Your task to perform on an android device: Go to Reddit.com Image 0: 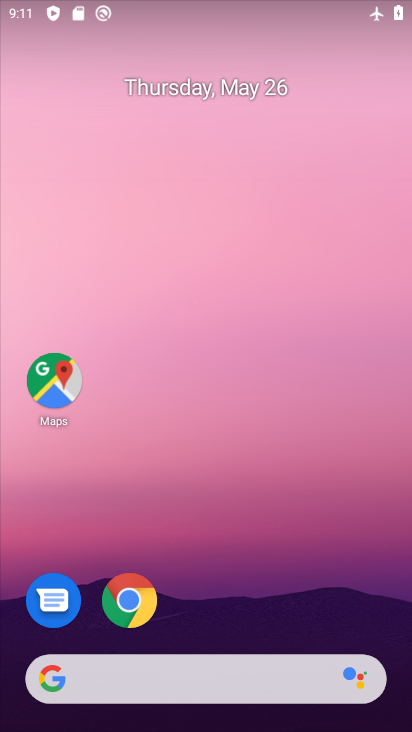
Step 0: click (126, 592)
Your task to perform on an android device: Go to Reddit.com Image 1: 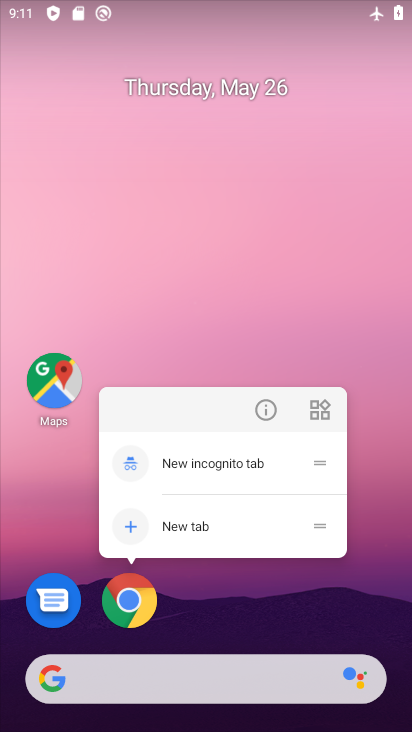
Step 1: click (124, 603)
Your task to perform on an android device: Go to Reddit.com Image 2: 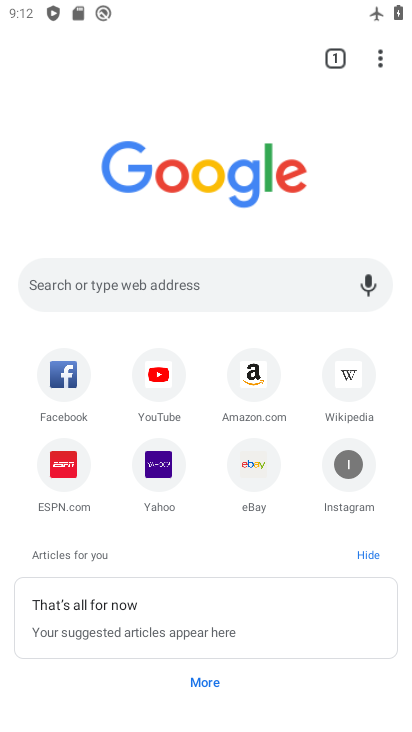
Step 2: click (216, 257)
Your task to perform on an android device: Go to Reddit.com Image 3: 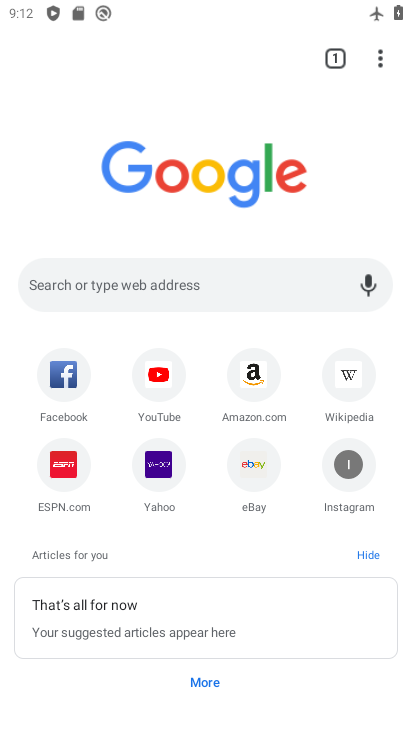
Step 3: click (223, 274)
Your task to perform on an android device: Go to Reddit.com Image 4: 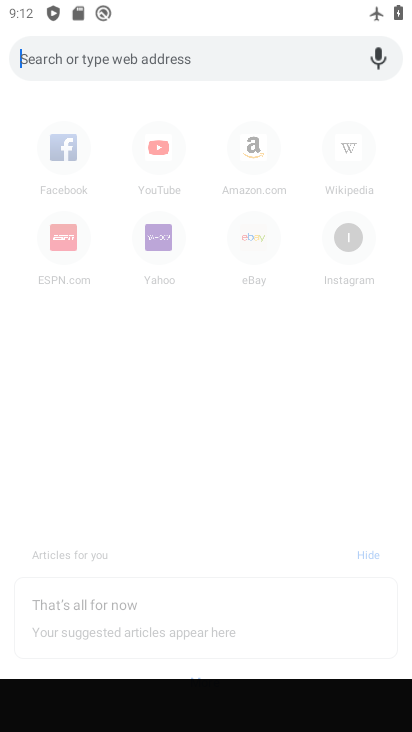
Step 4: click (192, 75)
Your task to perform on an android device: Go to Reddit.com Image 5: 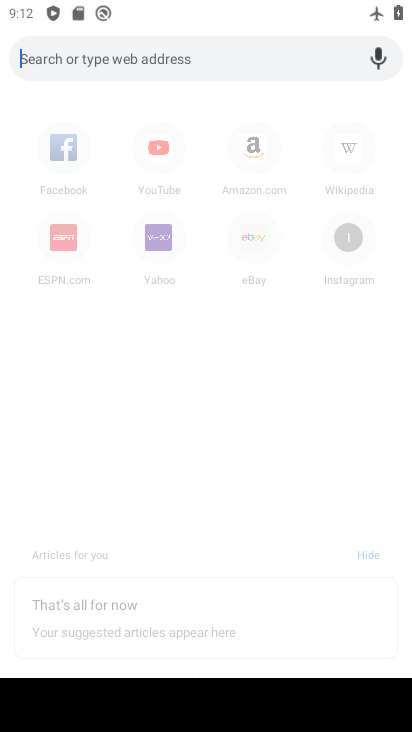
Step 5: type "reddit.com"
Your task to perform on an android device: Go to Reddit.com Image 6: 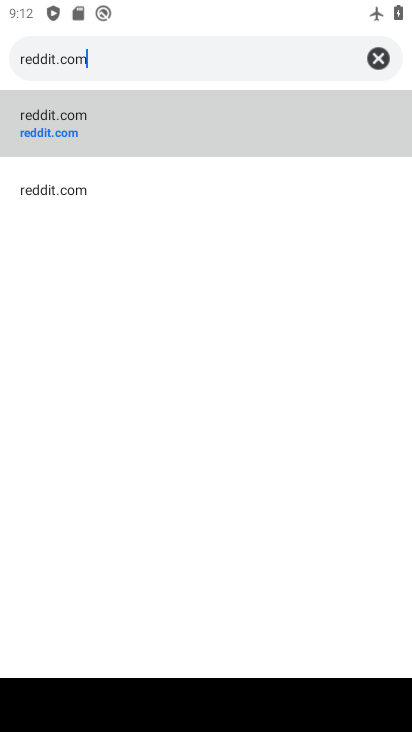
Step 6: click (160, 121)
Your task to perform on an android device: Go to Reddit.com Image 7: 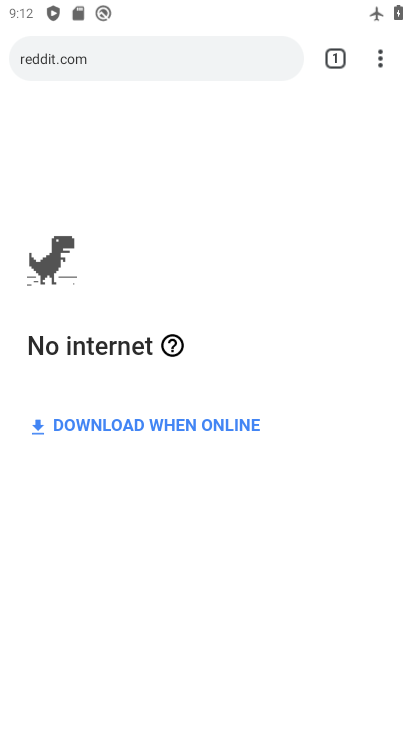
Step 7: task complete